Your task to perform on an android device: Open calendar and show me the fourth week of next month Image 0: 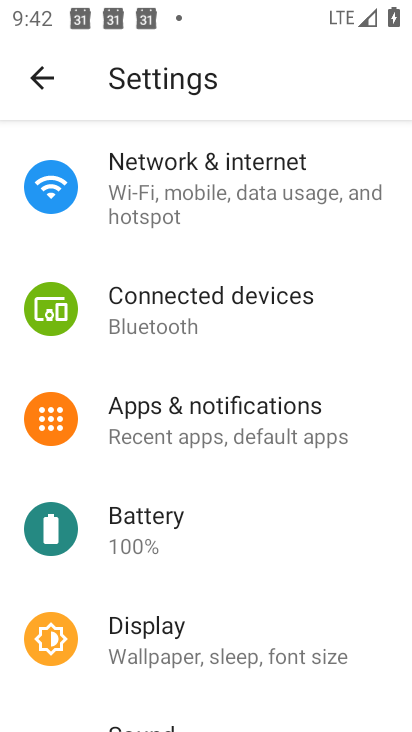
Step 0: press back button
Your task to perform on an android device: Open calendar and show me the fourth week of next month Image 1: 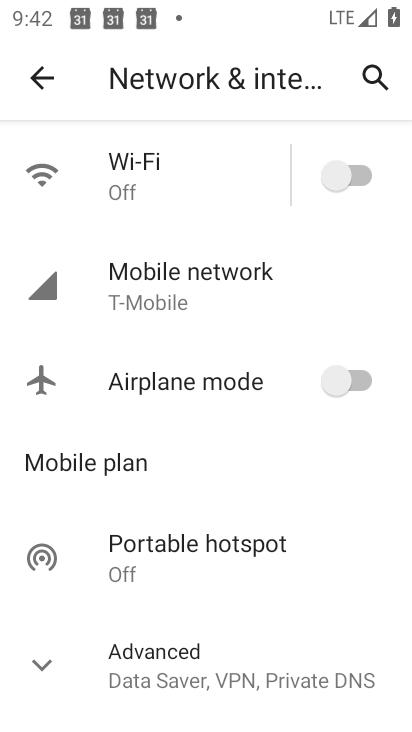
Step 1: press back button
Your task to perform on an android device: Open calendar and show me the fourth week of next month Image 2: 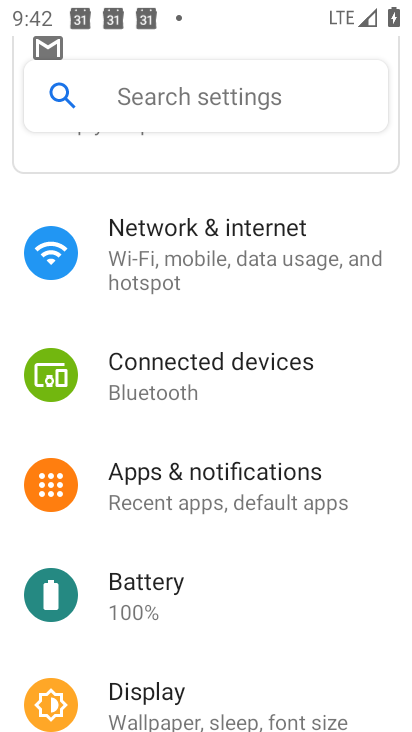
Step 2: press back button
Your task to perform on an android device: Open calendar and show me the fourth week of next month Image 3: 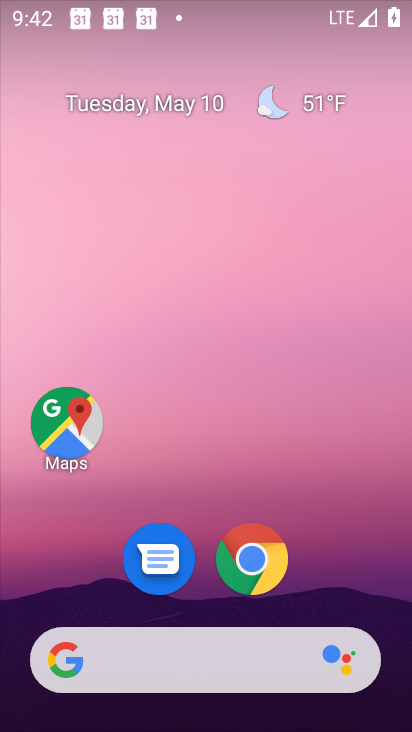
Step 3: drag from (339, 572) to (265, 212)
Your task to perform on an android device: Open calendar and show me the fourth week of next month Image 4: 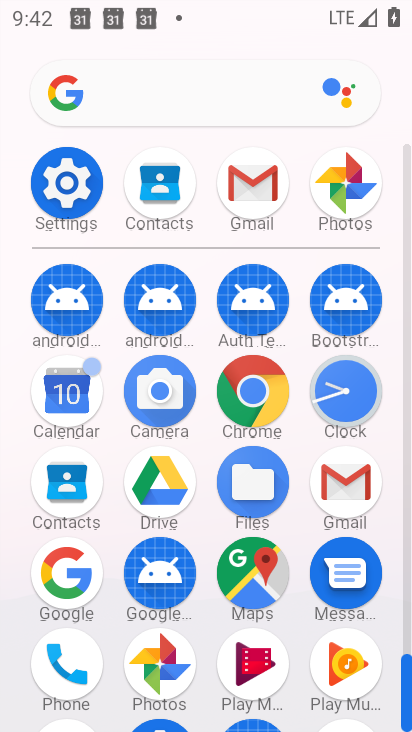
Step 4: click (68, 398)
Your task to perform on an android device: Open calendar and show me the fourth week of next month Image 5: 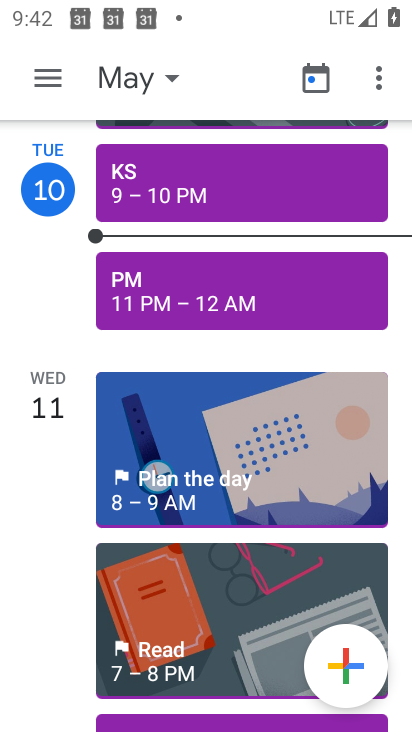
Step 5: click (170, 80)
Your task to perform on an android device: Open calendar and show me the fourth week of next month Image 6: 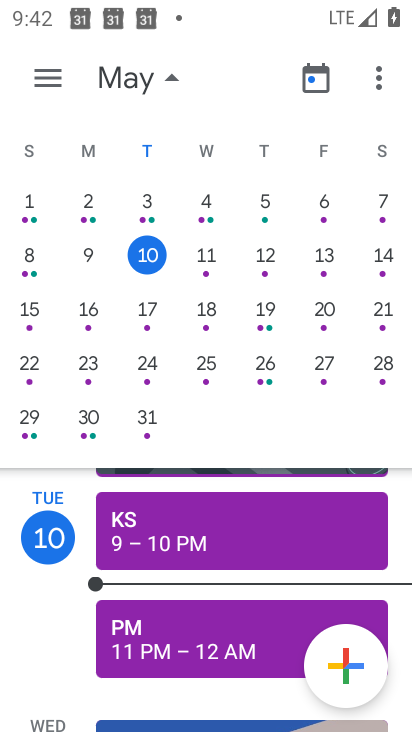
Step 6: drag from (344, 341) to (12, 293)
Your task to perform on an android device: Open calendar and show me the fourth week of next month Image 7: 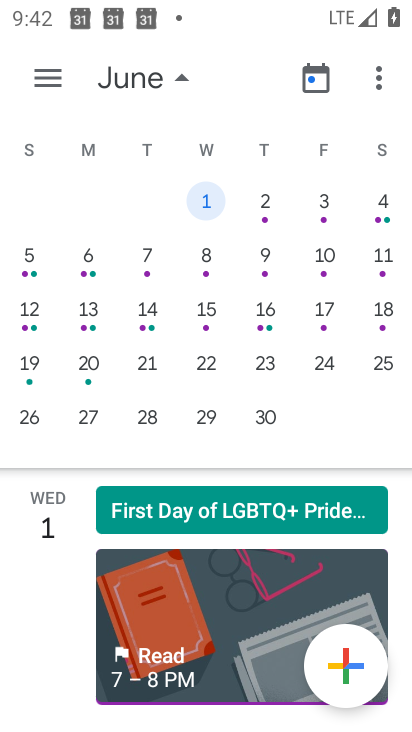
Step 7: click (91, 417)
Your task to perform on an android device: Open calendar and show me the fourth week of next month Image 8: 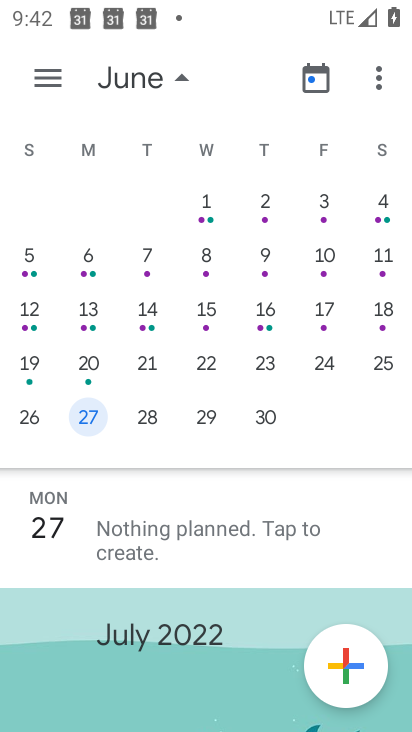
Step 8: click (46, 80)
Your task to perform on an android device: Open calendar and show me the fourth week of next month Image 9: 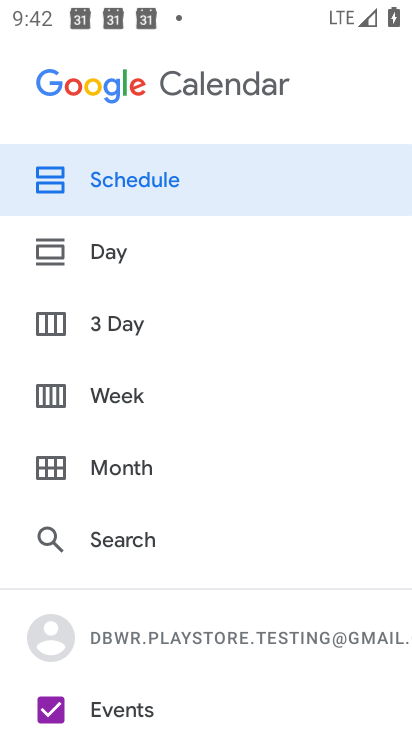
Step 9: click (130, 401)
Your task to perform on an android device: Open calendar and show me the fourth week of next month Image 10: 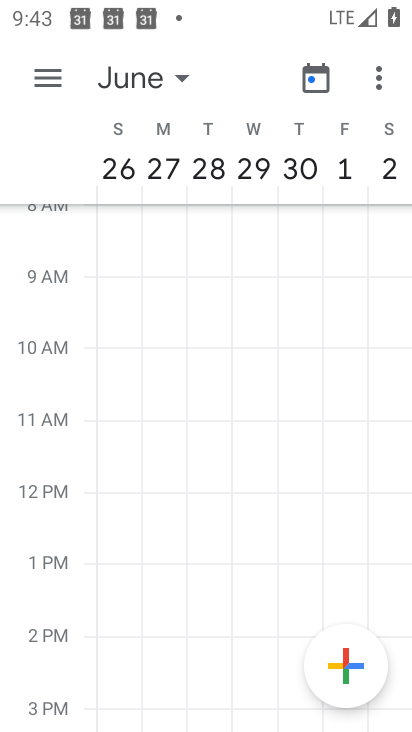
Step 10: task complete